Your task to perform on an android device: Open Google Maps Image 0: 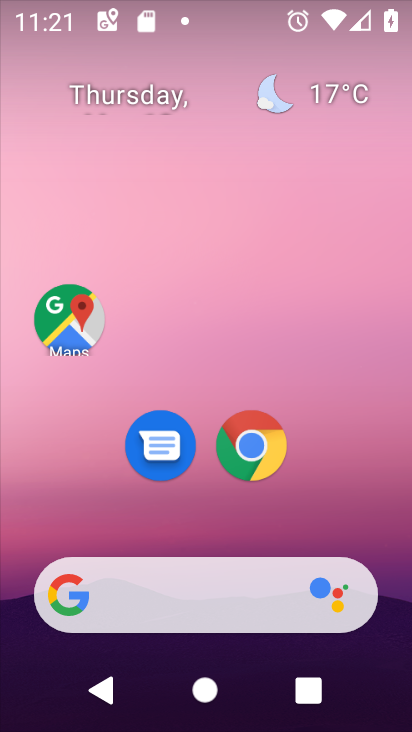
Step 0: drag from (163, 507) to (189, 204)
Your task to perform on an android device: Open Google Maps Image 1: 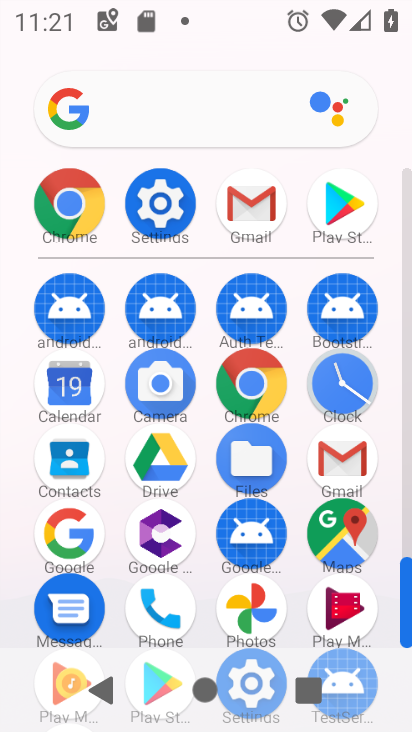
Step 1: click (325, 534)
Your task to perform on an android device: Open Google Maps Image 2: 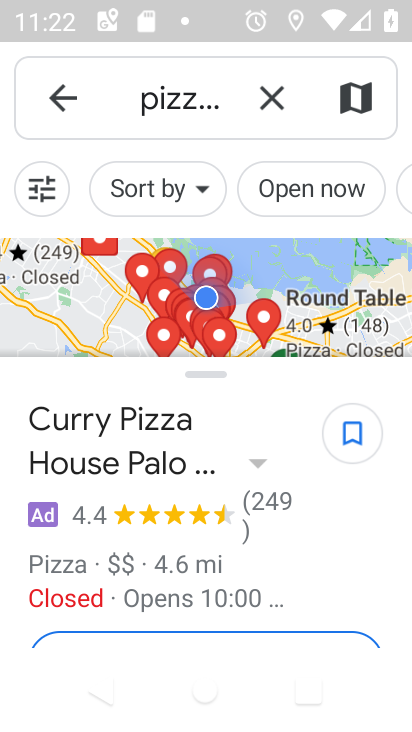
Step 2: task complete